Your task to perform on an android device: Open CNN.com Image 0: 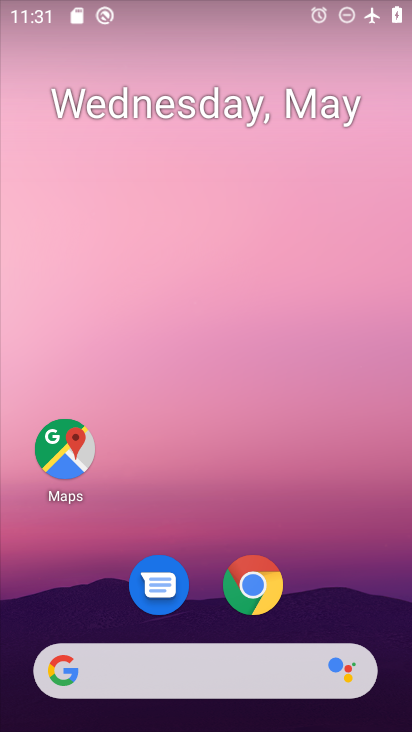
Step 0: click (233, 669)
Your task to perform on an android device: Open CNN.com Image 1: 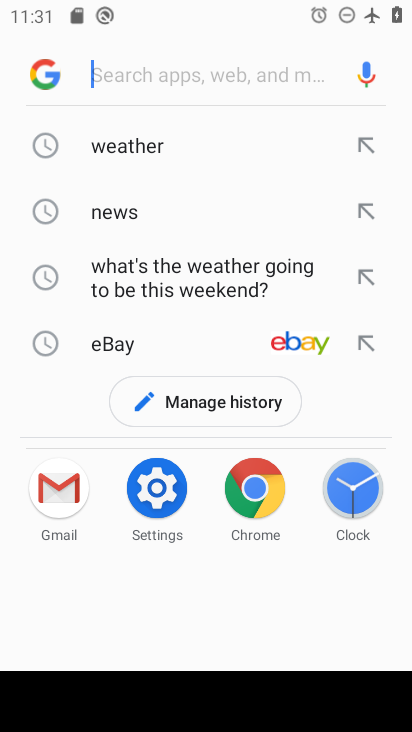
Step 1: type "cnn.com"
Your task to perform on an android device: Open CNN.com Image 2: 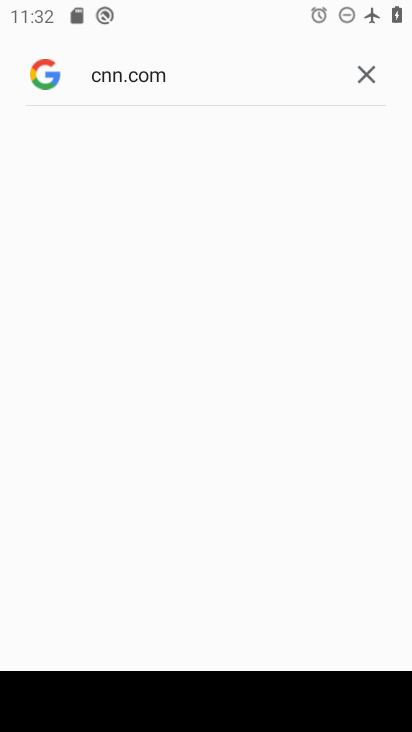
Step 2: task complete